Your task to perform on an android device: add a contact Image 0: 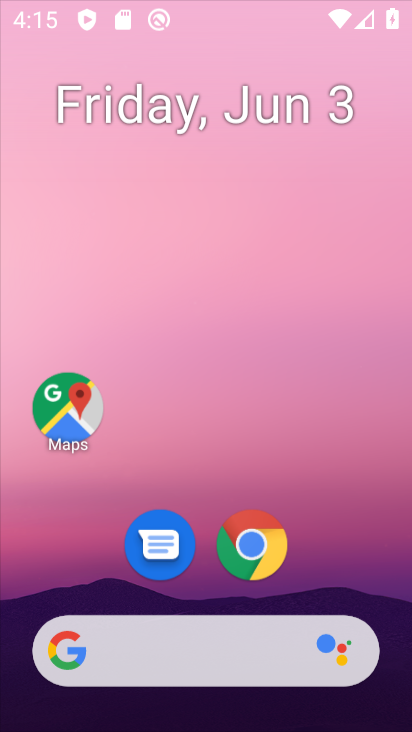
Step 0: drag from (111, 484) to (214, 120)
Your task to perform on an android device: add a contact Image 1: 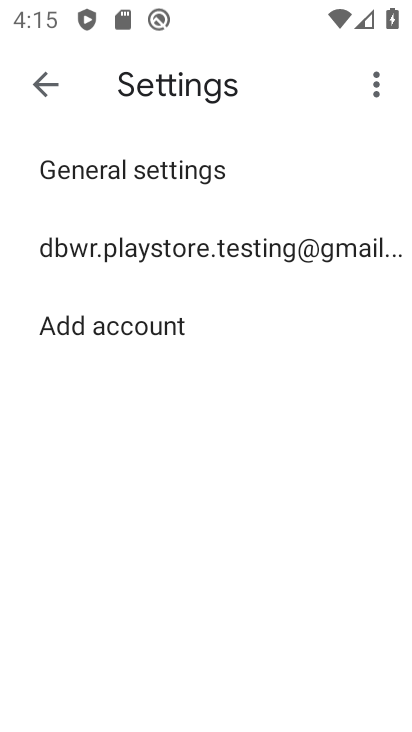
Step 1: press home button
Your task to perform on an android device: add a contact Image 2: 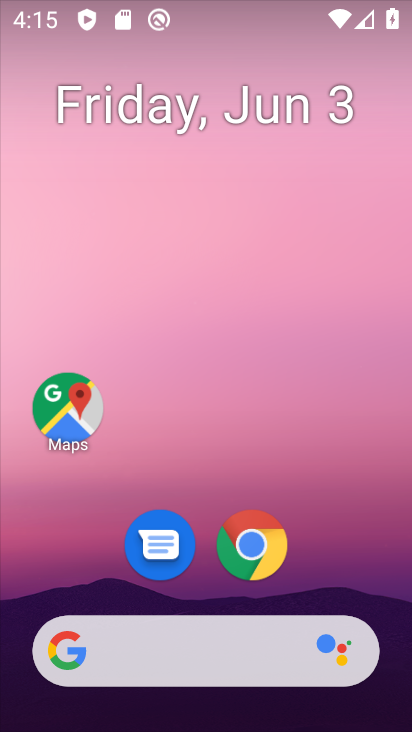
Step 2: drag from (79, 574) to (186, 112)
Your task to perform on an android device: add a contact Image 3: 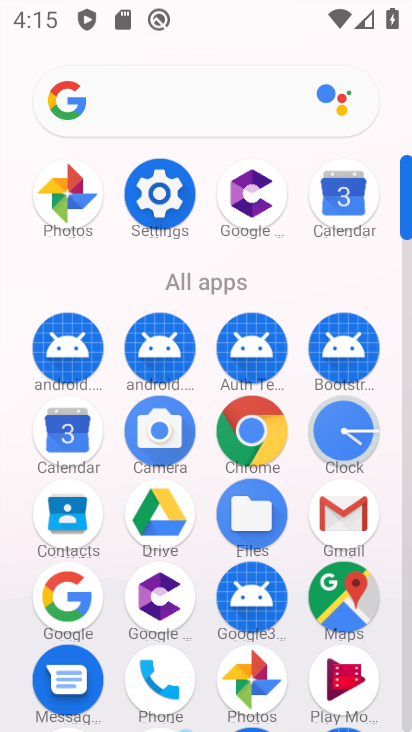
Step 3: click (76, 530)
Your task to perform on an android device: add a contact Image 4: 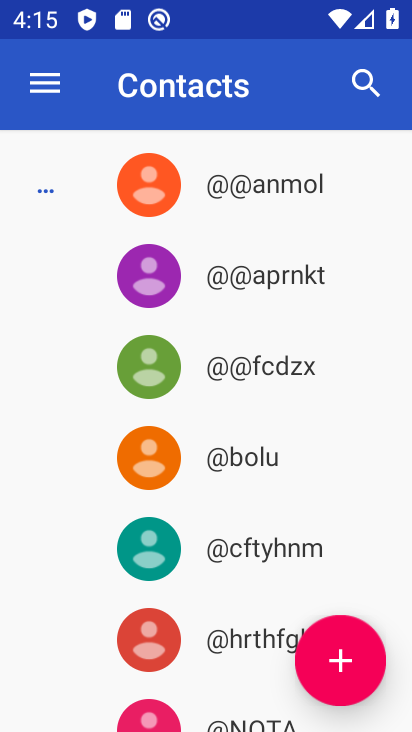
Step 4: click (327, 653)
Your task to perform on an android device: add a contact Image 5: 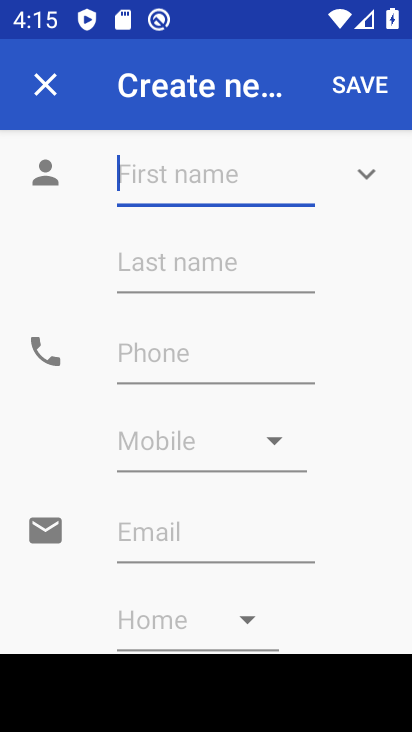
Step 5: type "HMMM"
Your task to perform on an android device: add a contact Image 6: 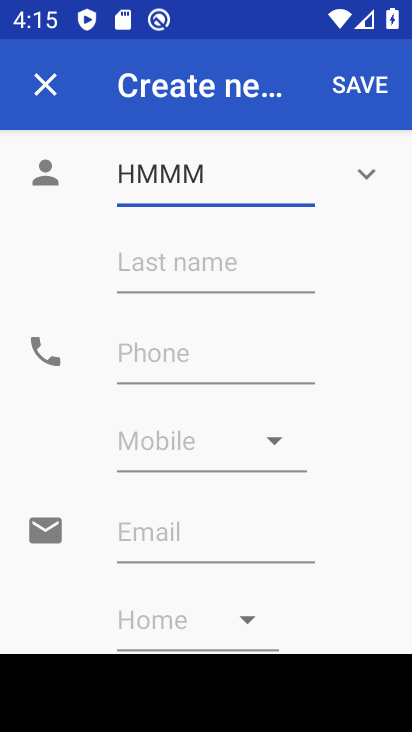
Step 6: click (166, 368)
Your task to perform on an android device: add a contact Image 7: 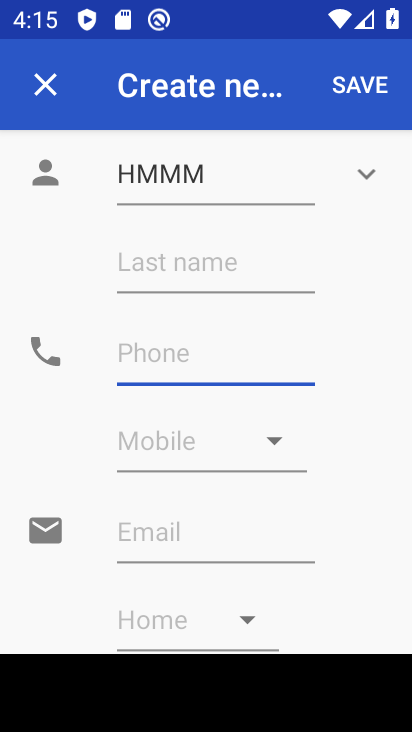
Step 7: type "23232322"
Your task to perform on an android device: add a contact Image 8: 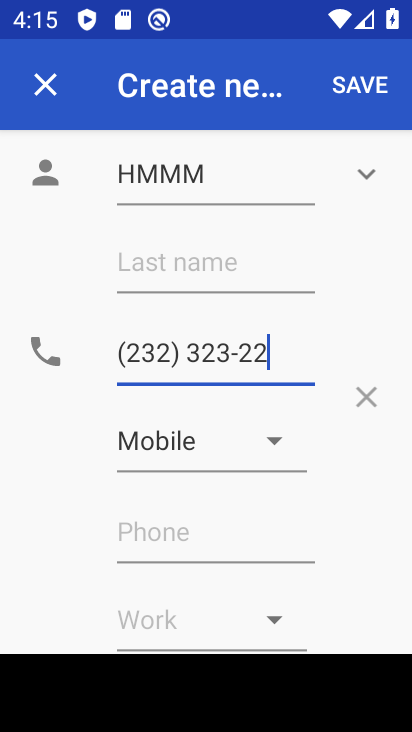
Step 8: click (375, 74)
Your task to perform on an android device: add a contact Image 9: 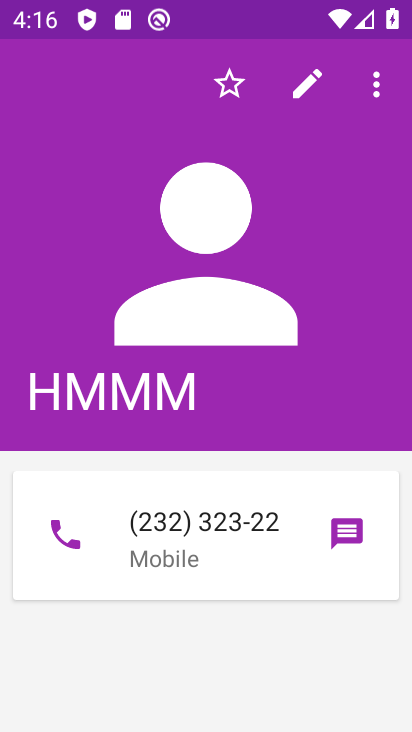
Step 9: task complete